Your task to perform on an android device: toggle improve location accuracy Image 0: 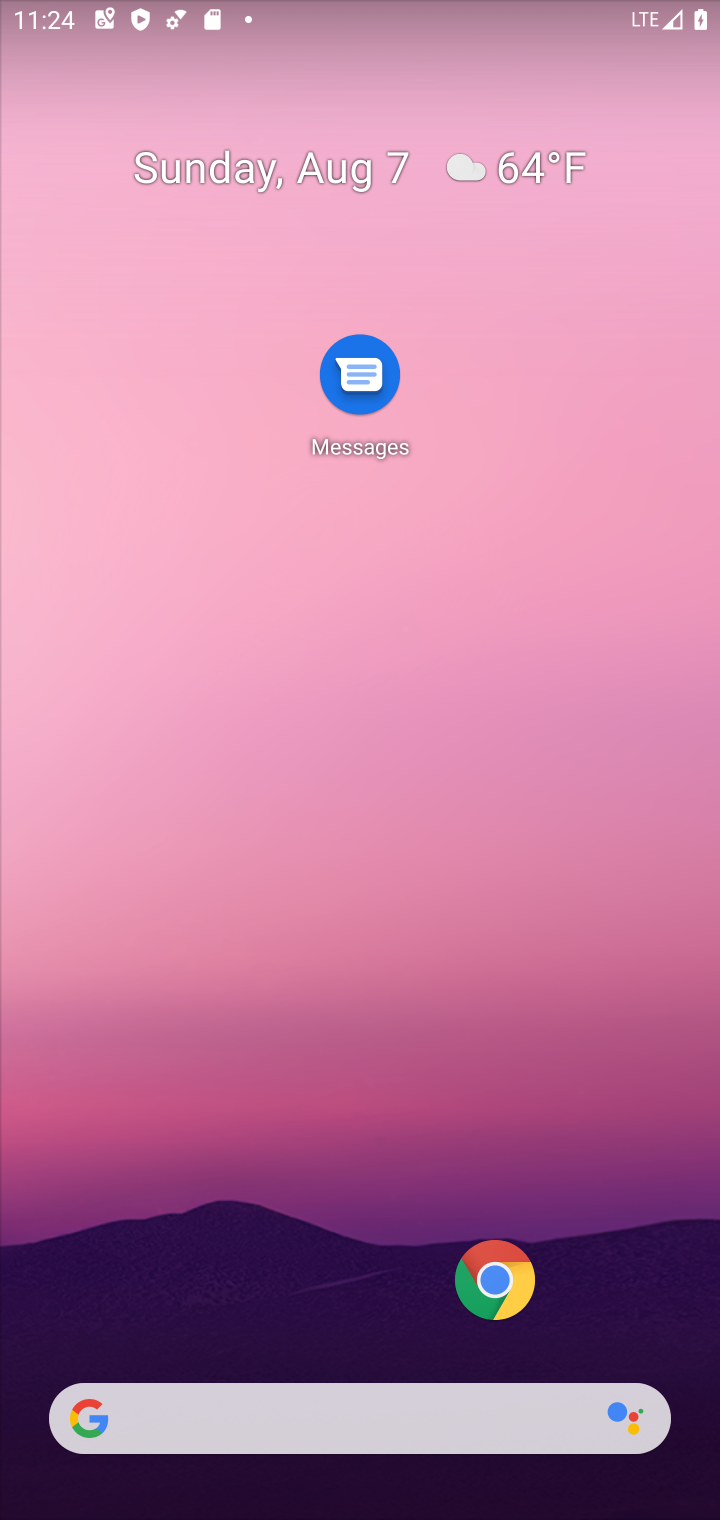
Step 0: drag from (241, 1293) to (363, 200)
Your task to perform on an android device: toggle improve location accuracy Image 1: 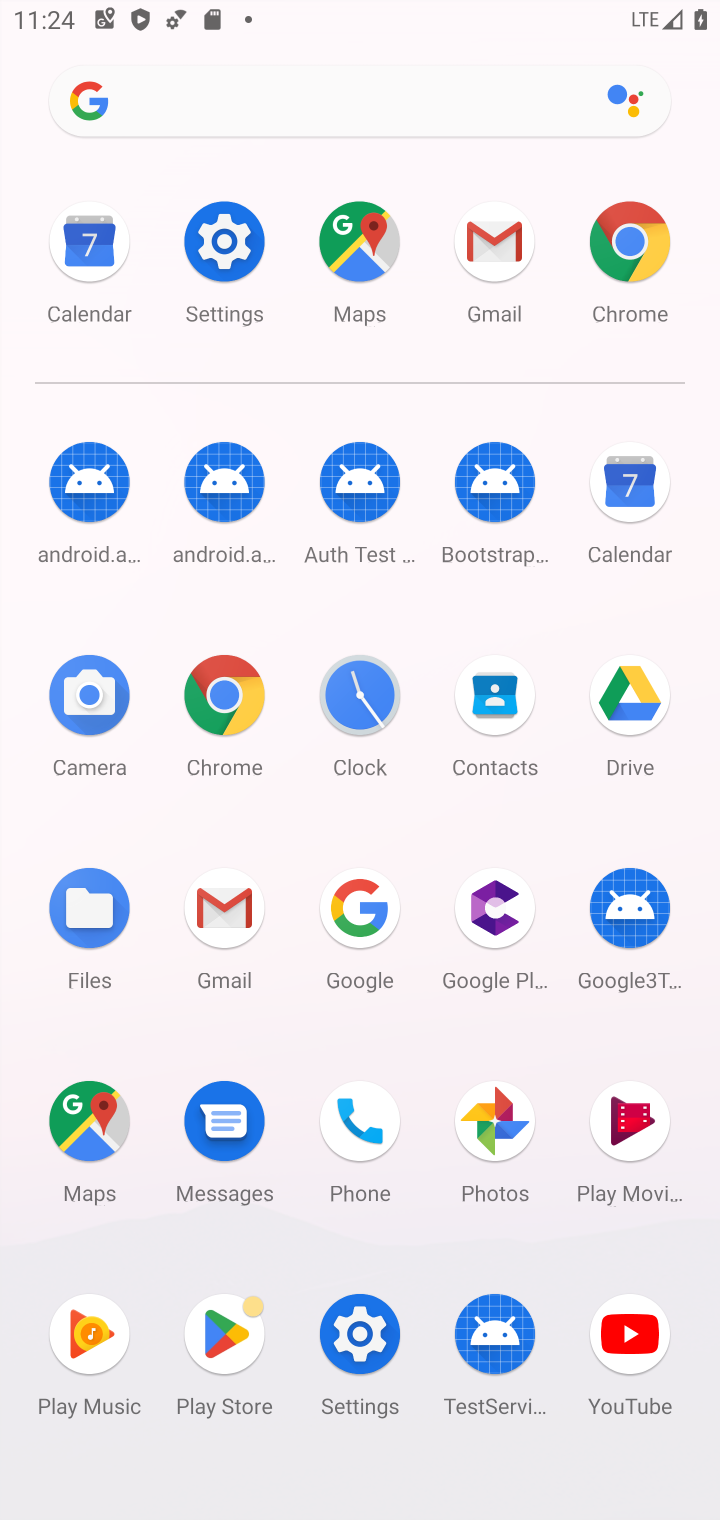
Step 1: click (231, 224)
Your task to perform on an android device: toggle improve location accuracy Image 2: 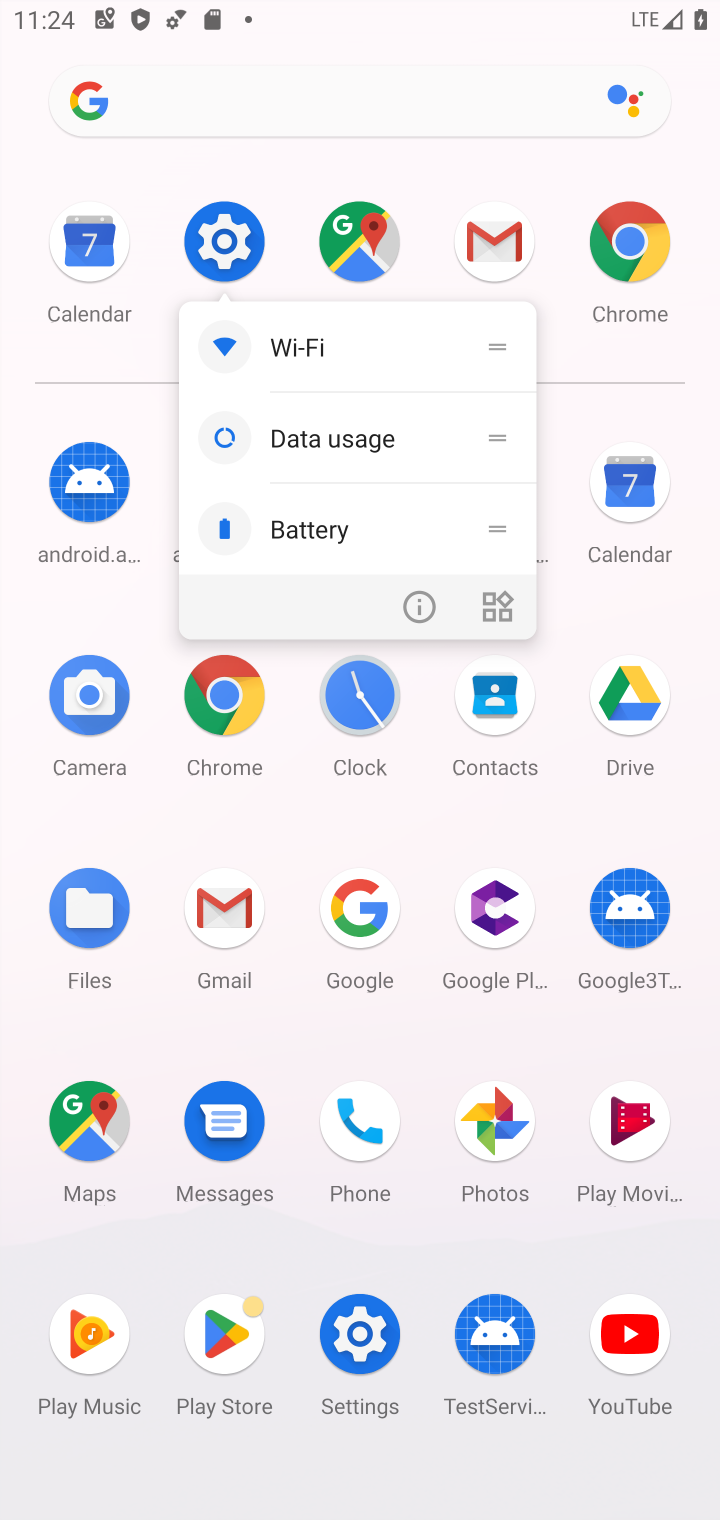
Step 2: click (225, 232)
Your task to perform on an android device: toggle improve location accuracy Image 3: 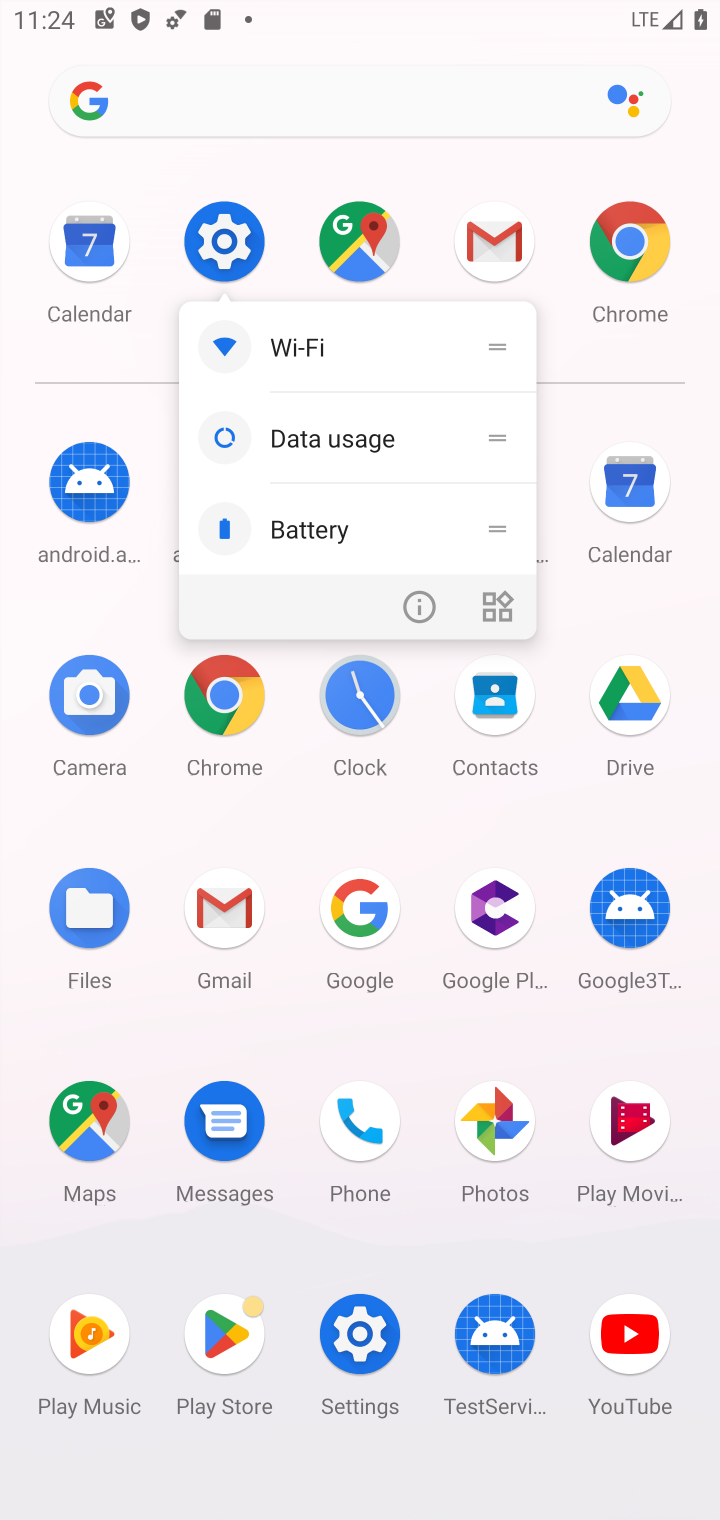
Step 3: click (210, 243)
Your task to perform on an android device: toggle improve location accuracy Image 4: 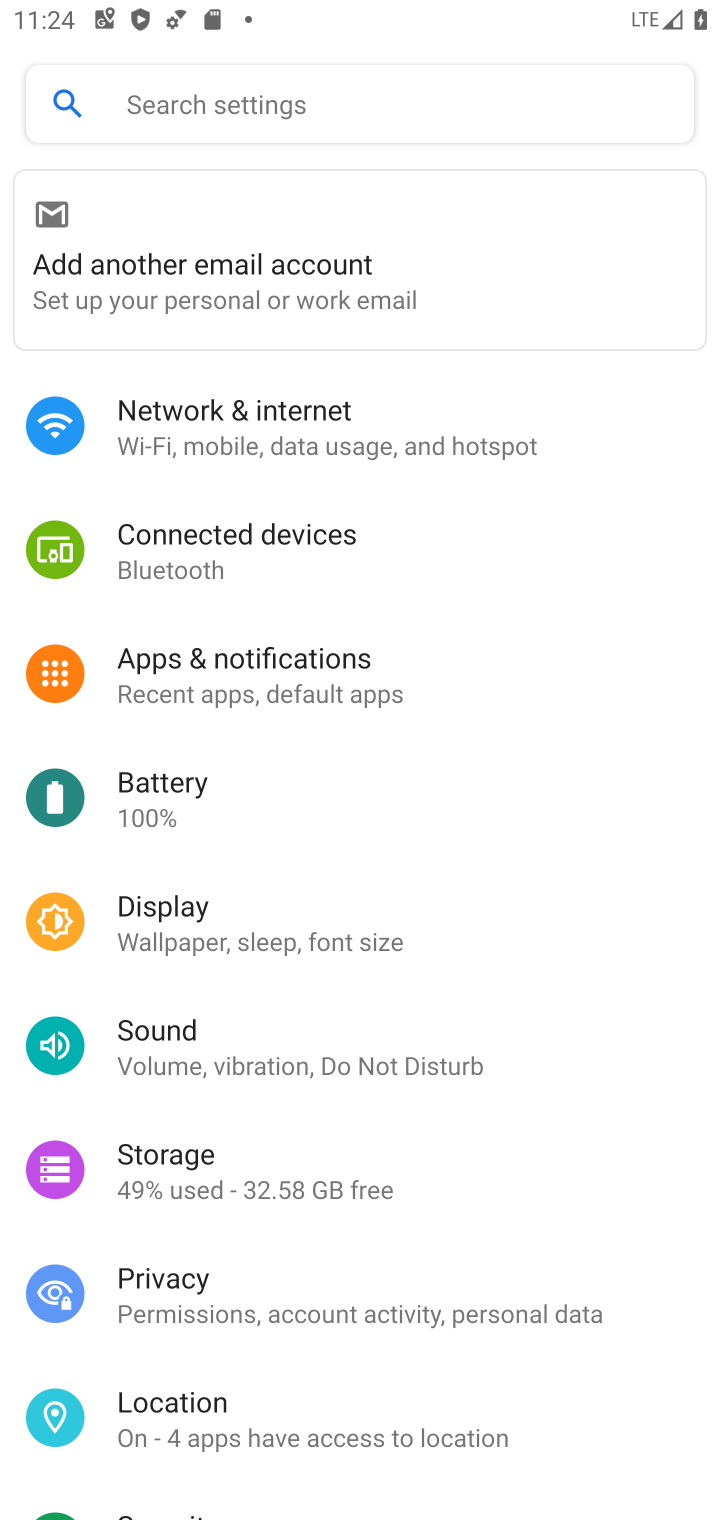
Step 4: click (189, 1392)
Your task to perform on an android device: toggle improve location accuracy Image 5: 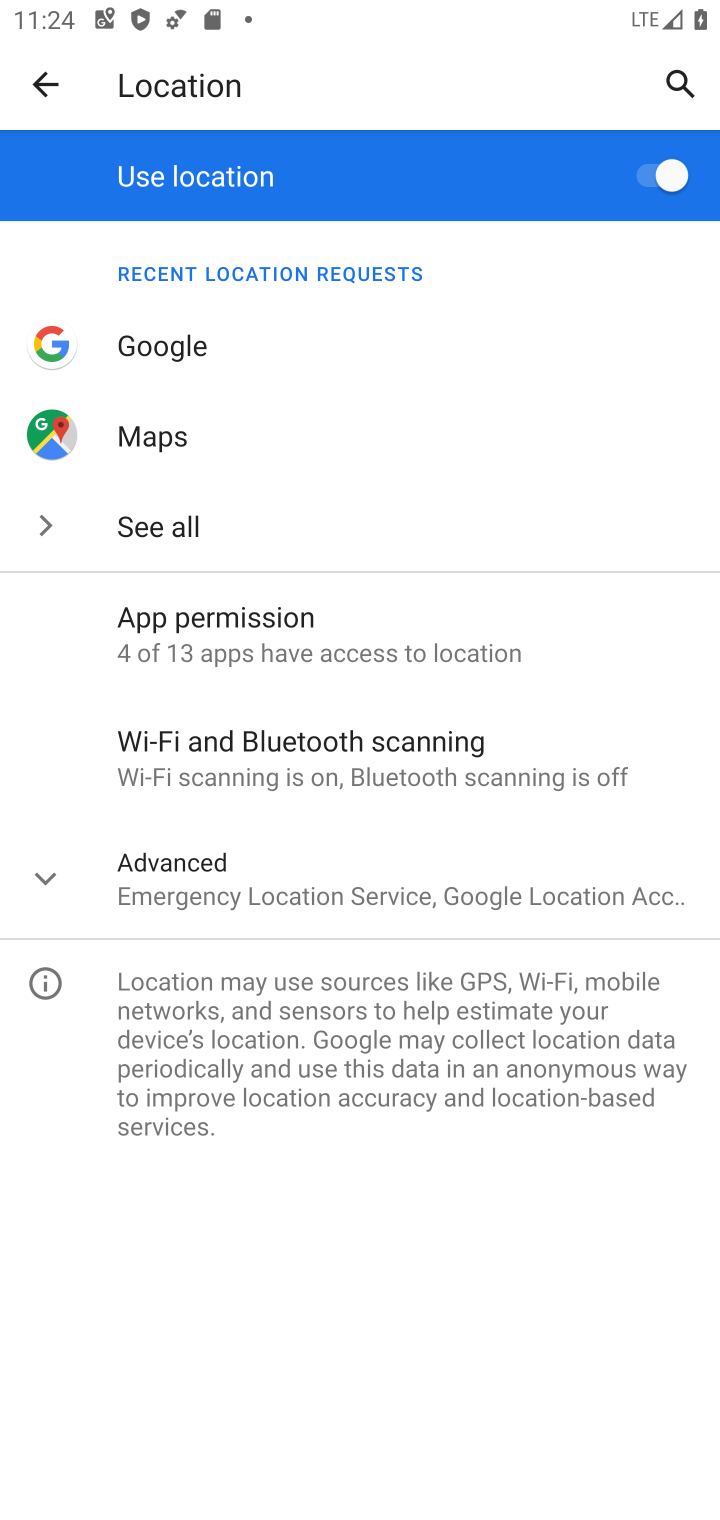
Step 5: click (287, 889)
Your task to perform on an android device: toggle improve location accuracy Image 6: 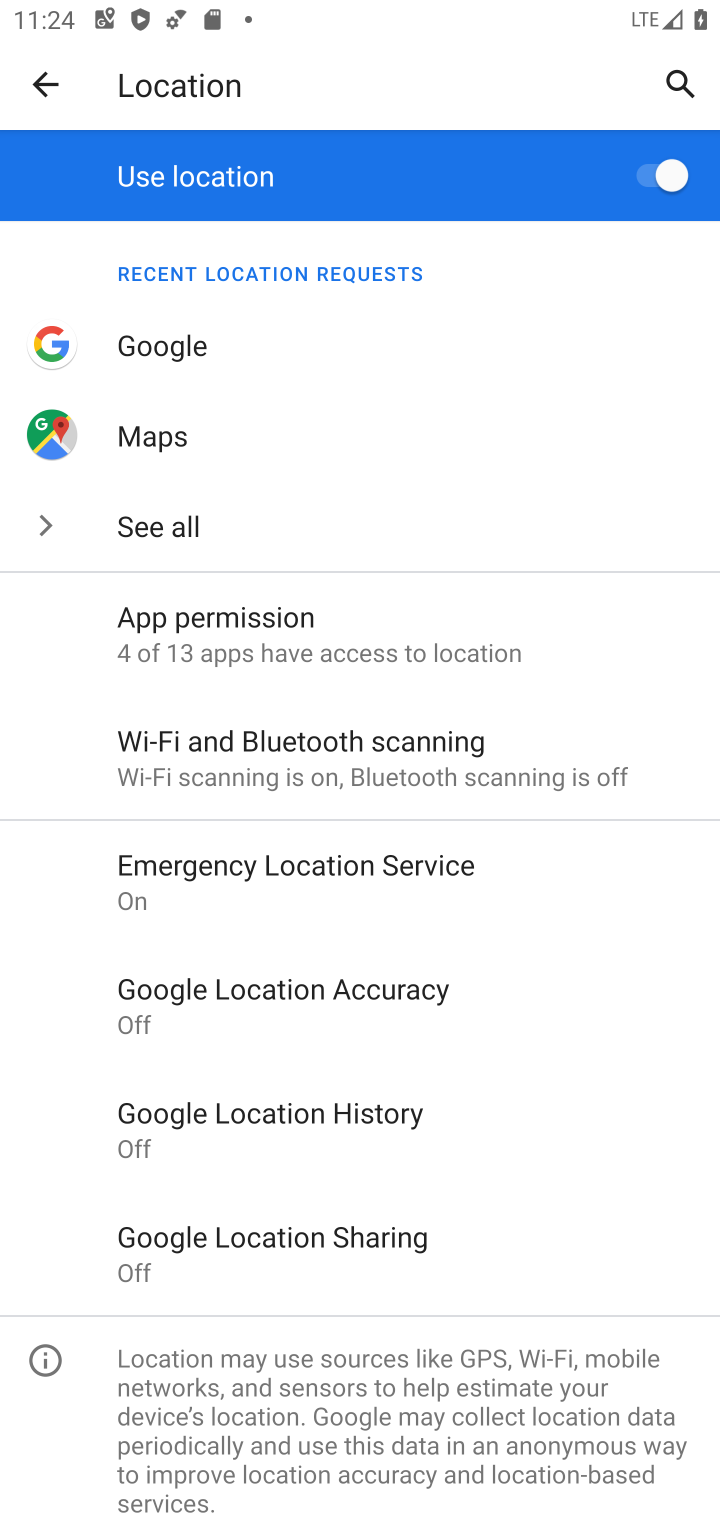
Step 6: click (307, 1011)
Your task to perform on an android device: toggle improve location accuracy Image 7: 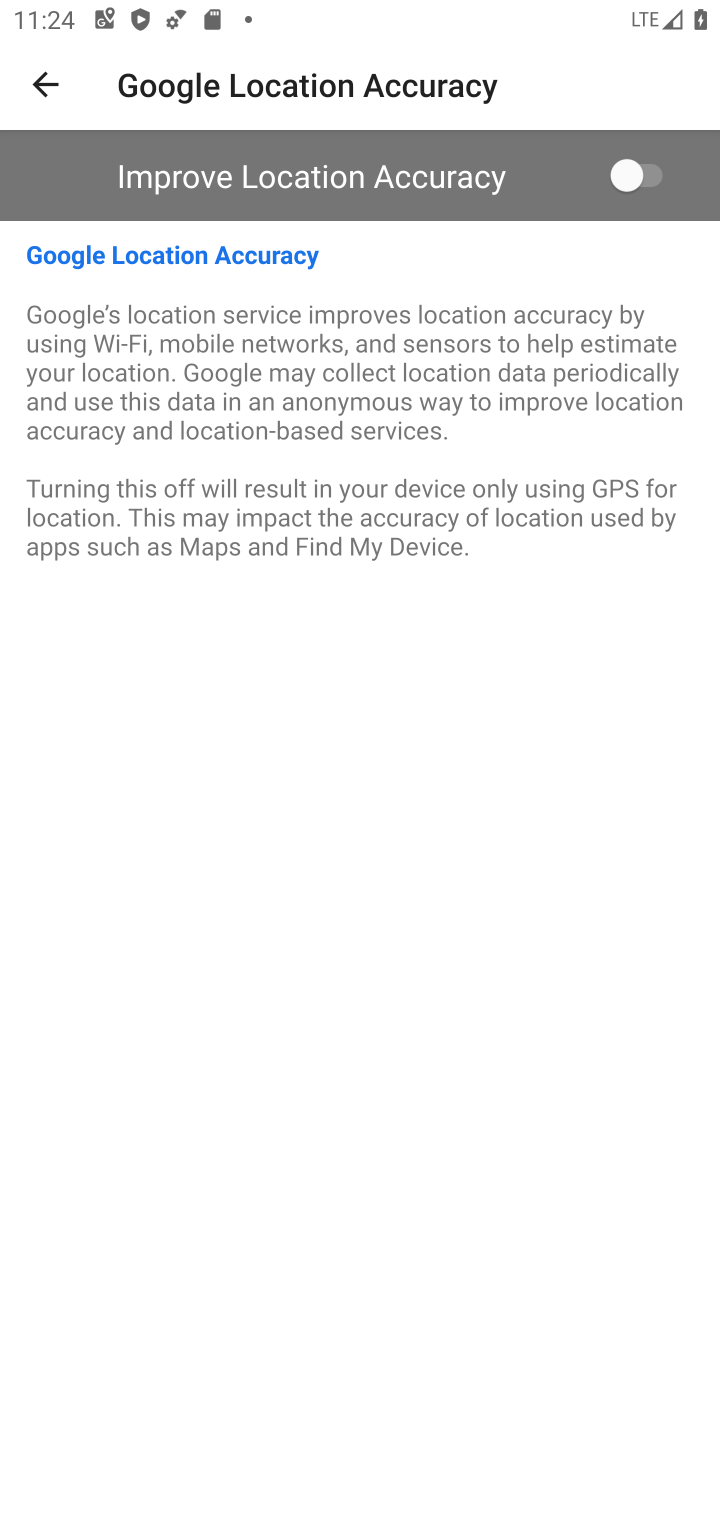
Step 7: click (621, 177)
Your task to perform on an android device: toggle improve location accuracy Image 8: 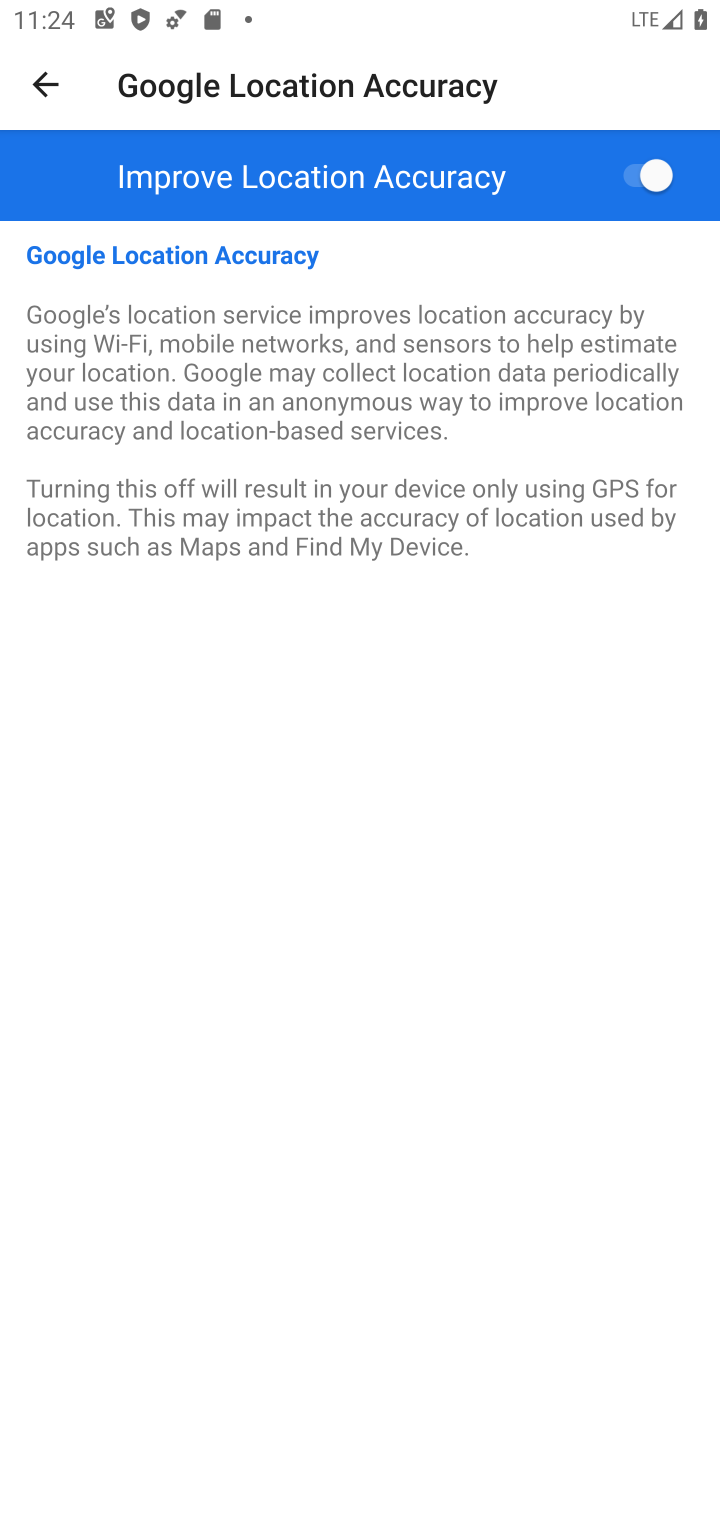
Step 8: task complete